Your task to perform on an android device: turn off sleep mode Image 0: 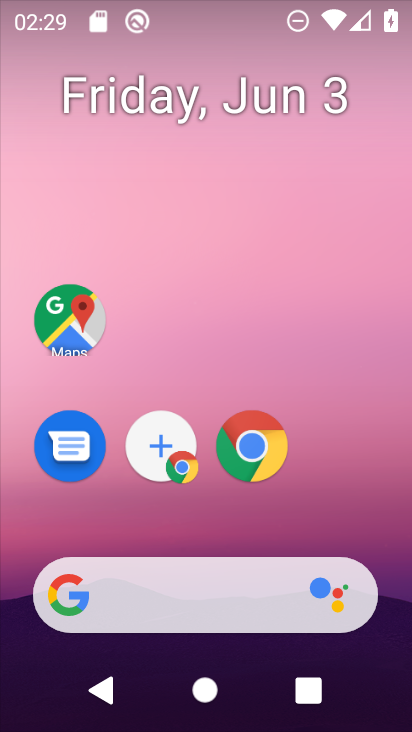
Step 0: drag from (242, 673) to (276, 1)
Your task to perform on an android device: turn off sleep mode Image 1: 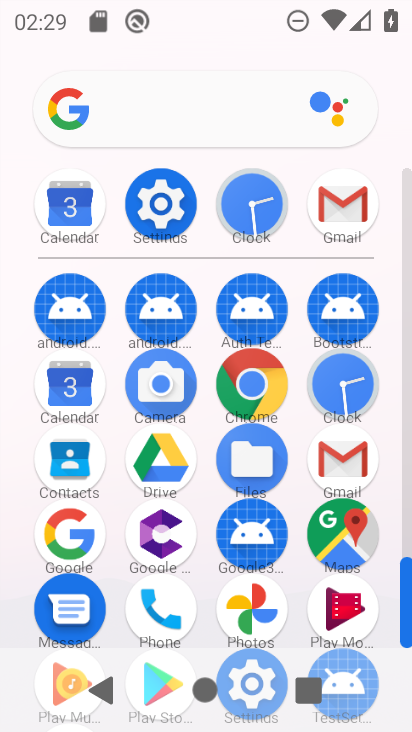
Step 1: click (148, 217)
Your task to perform on an android device: turn off sleep mode Image 2: 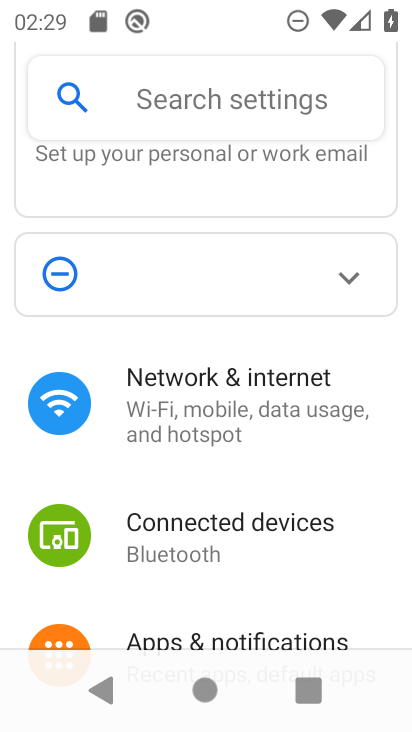
Step 2: drag from (328, 559) to (154, 720)
Your task to perform on an android device: turn off sleep mode Image 3: 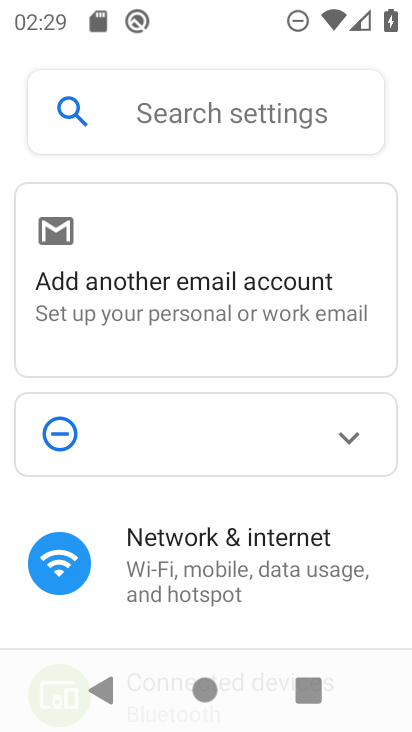
Step 3: click (340, 461)
Your task to perform on an android device: turn off sleep mode Image 4: 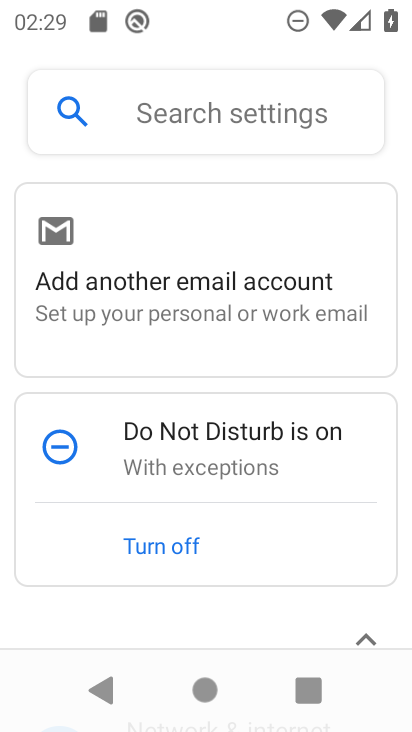
Step 4: drag from (248, 577) to (261, 121)
Your task to perform on an android device: turn off sleep mode Image 5: 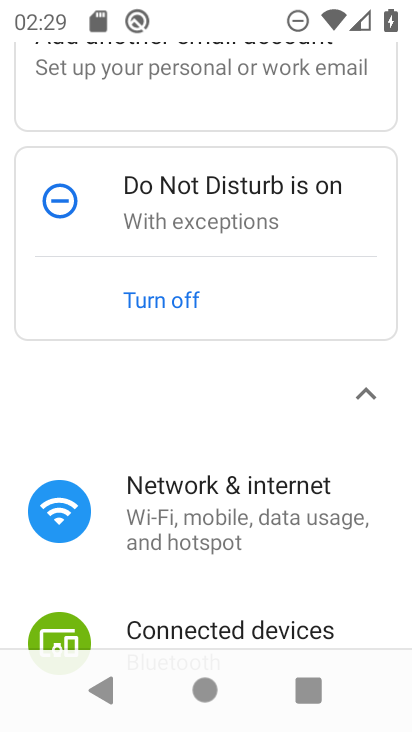
Step 5: drag from (220, 600) to (256, 25)
Your task to perform on an android device: turn off sleep mode Image 6: 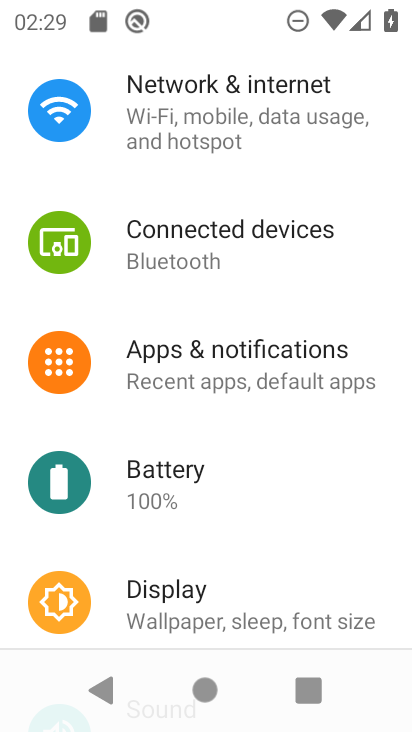
Step 6: click (260, 598)
Your task to perform on an android device: turn off sleep mode Image 7: 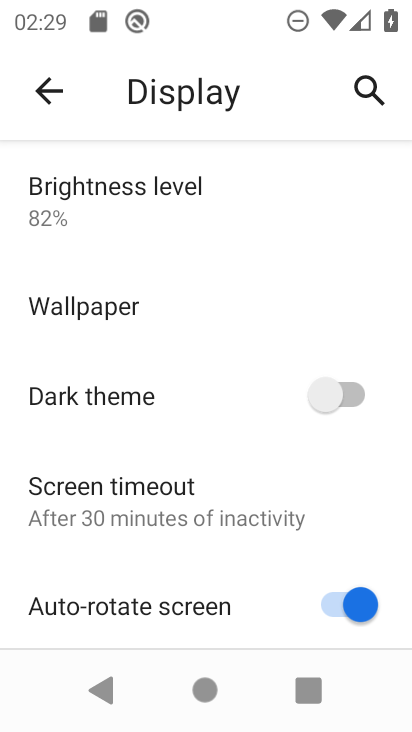
Step 7: task complete